Your task to perform on an android device: Open settings on Google Maps Image 0: 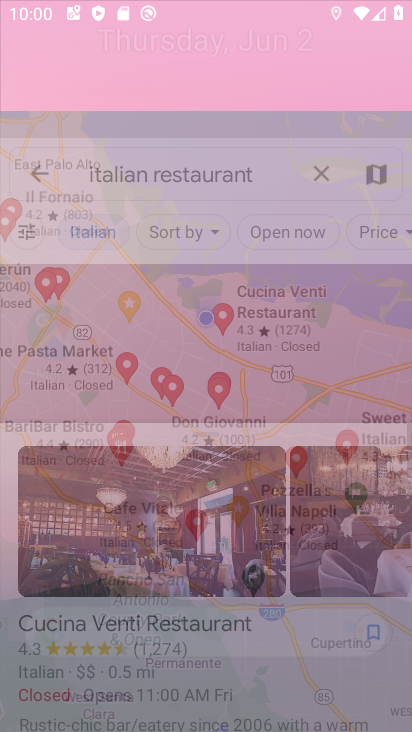
Step 0: drag from (138, 731) to (92, 158)
Your task to perform on an android device: Open settings on Google Maps Image 1: 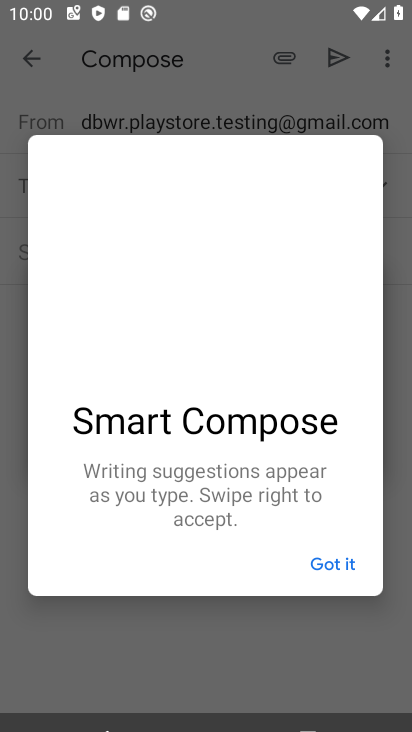
Step 1: click (335, 566)
Your task to perform on an android device: Open settings on Google Maps Image 2: 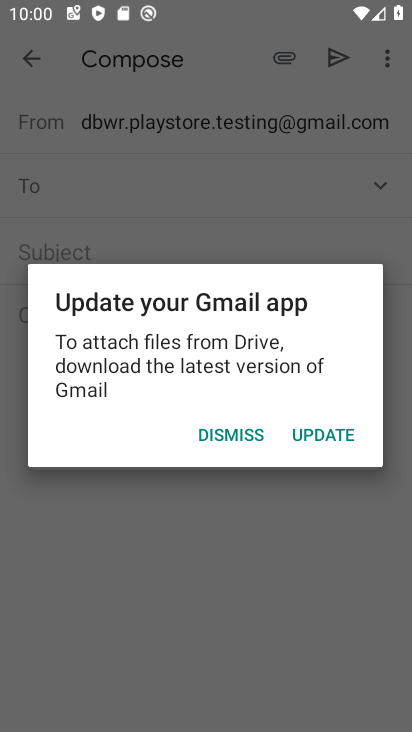
Step 2: press home button
Your task to perform on an android device: Open settings on Google Maps Image 3: 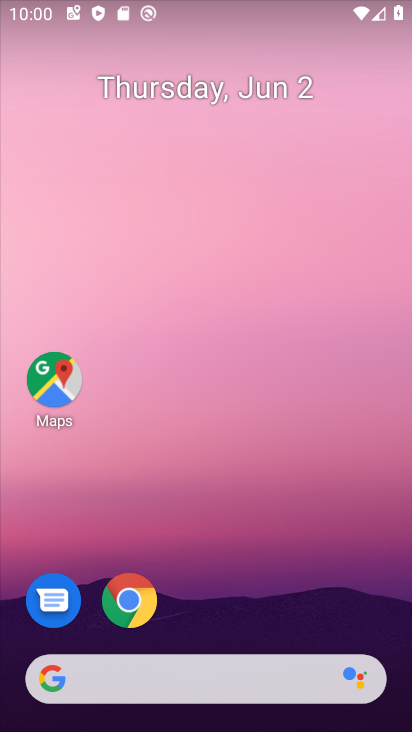
Step 3: click (63, 384)
Your task to perform on an android device: Open settings on Google Maps Image 4: 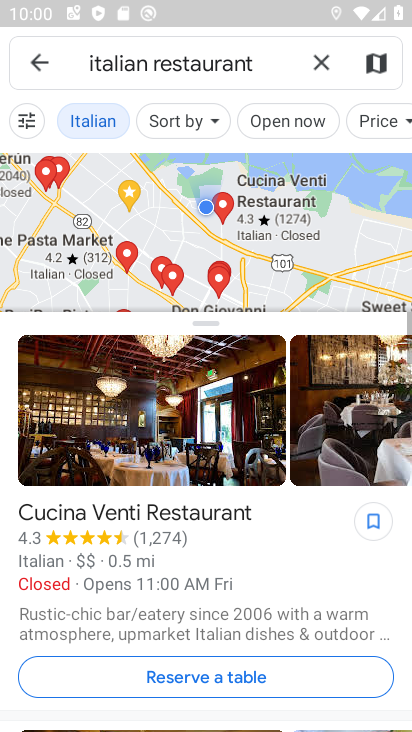
Step 4: click (332, 69)
Your task to perform on an android device: Open settings on Google Maps Image 5: 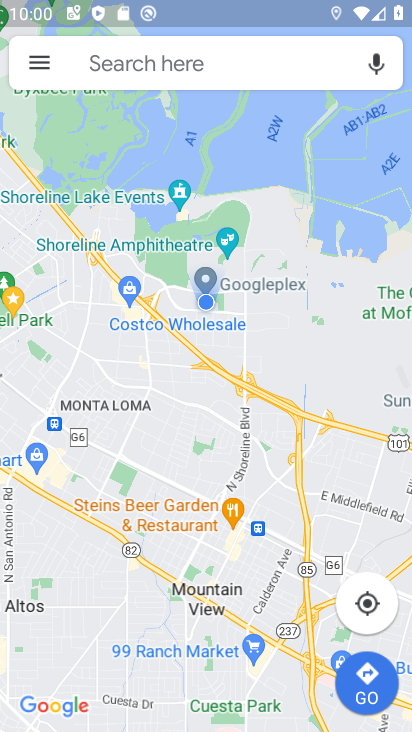
Step 5: click (31, 58)
Your task to perform on an android device: Open settings on Google Maps Image 6: 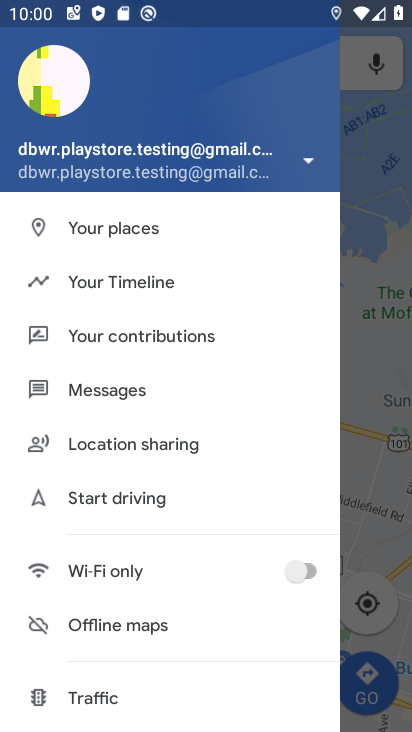
Step 6: drag from (148, 652) to (80, 273)
Your task to perform on an android device: Open settings on Google Maps Image 7: 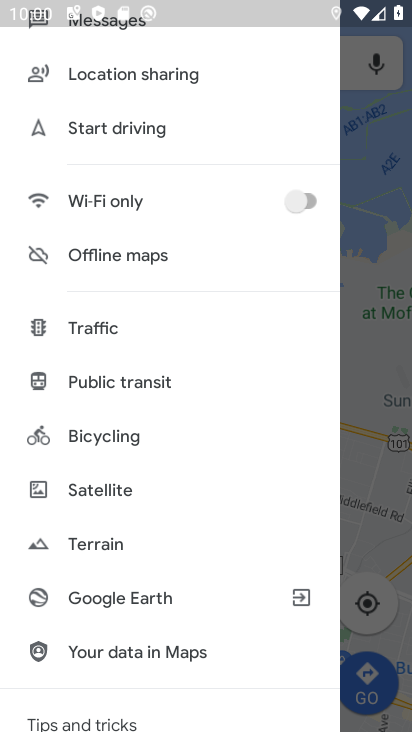
Step 7: drag from (206, 699) to (212, 379)
Your task to perform on an android device: Open settings on Google Maps Image 8: 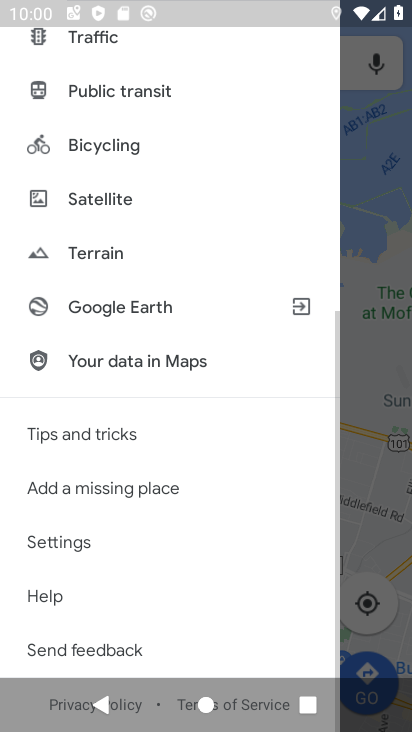
Step 8: click (51, 543)
Your task to perform on an android device: Open settings on Google Maps Image 9: 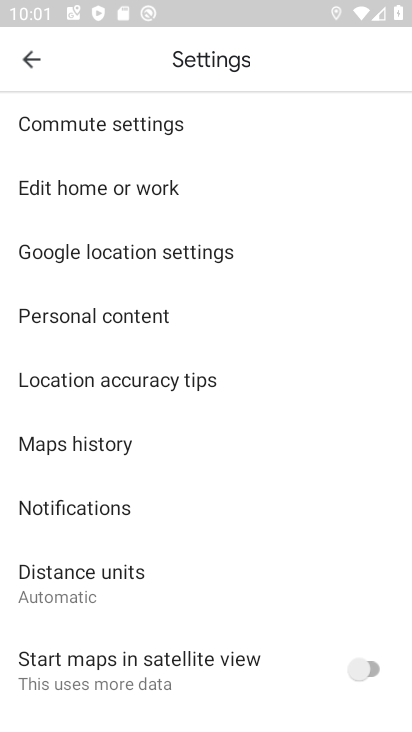
Step 9: task complete